Your task to perform on an android device: Show me recent news Image 0: 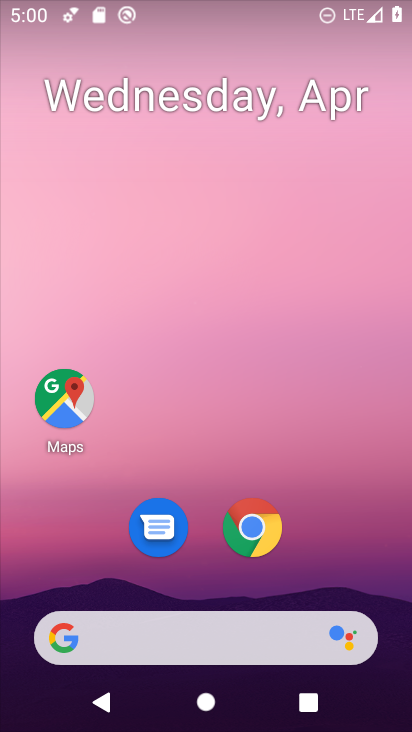
Step 0: drag from (38, 211) to (398, 169)
Your task to perform on an android device: Show me recent news Image 1: 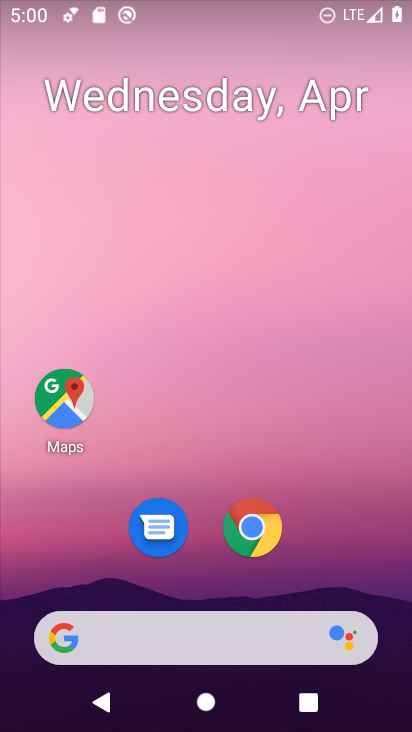
Step 1: task complete